Your task to perform on an android device: open a new tab in the chrome app Image 0: 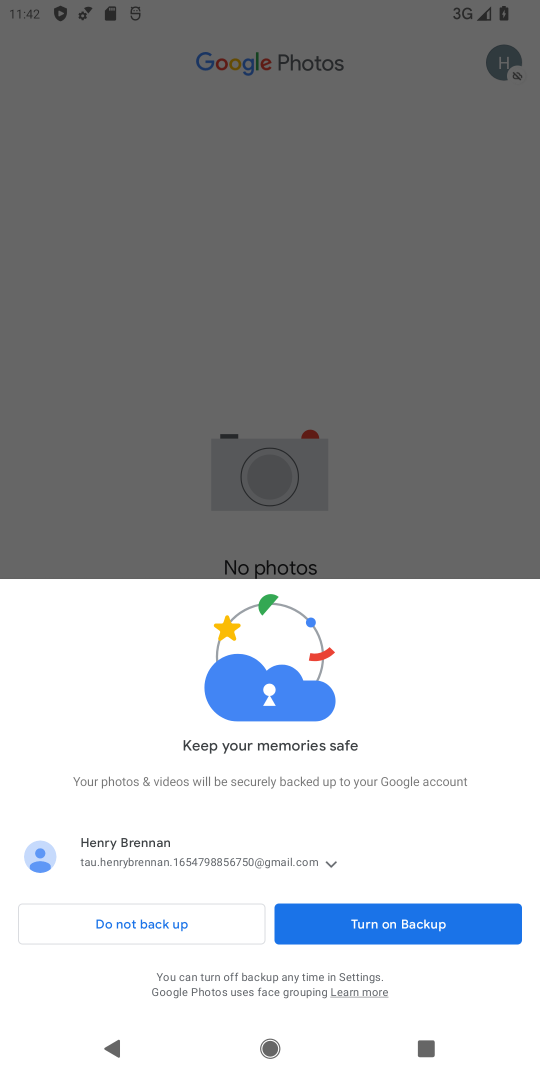
Step 0: press home button
Your task to perform on an android device: open a new tab in the chrome app Image 1: 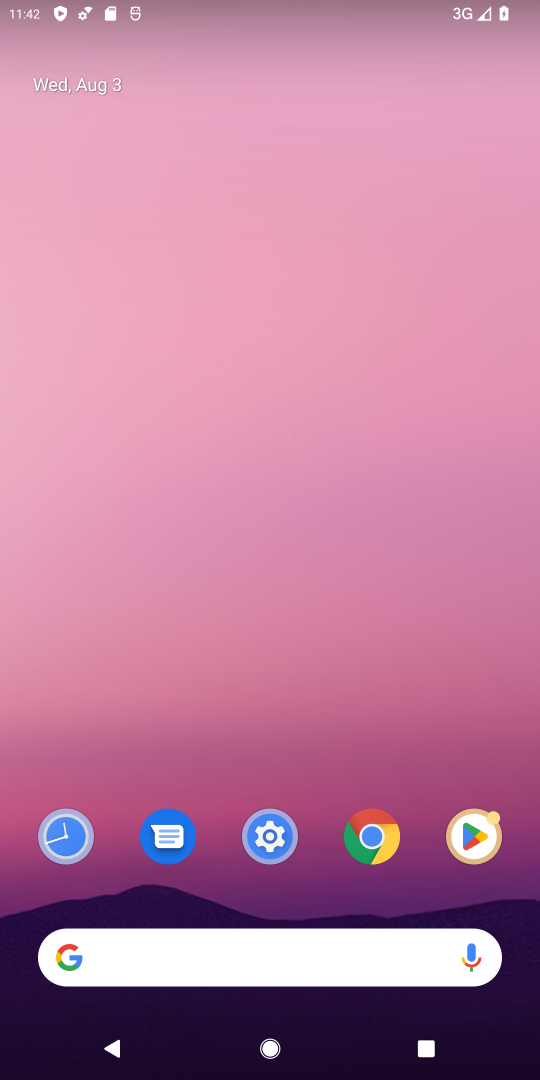
Step 1: drag from (235, 832) to (331, 230)
Your task to perform on an android device: open a new tab in the chrome app Image 2: 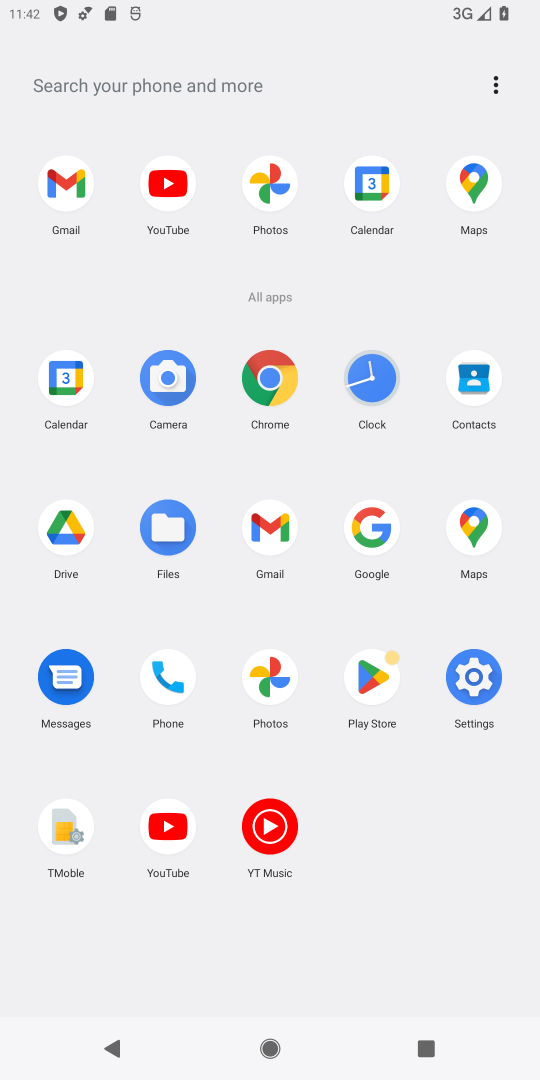
Step 2: click (268, 388)
Your task to perform on an android device: open a new tab in the chrome app Image 3: 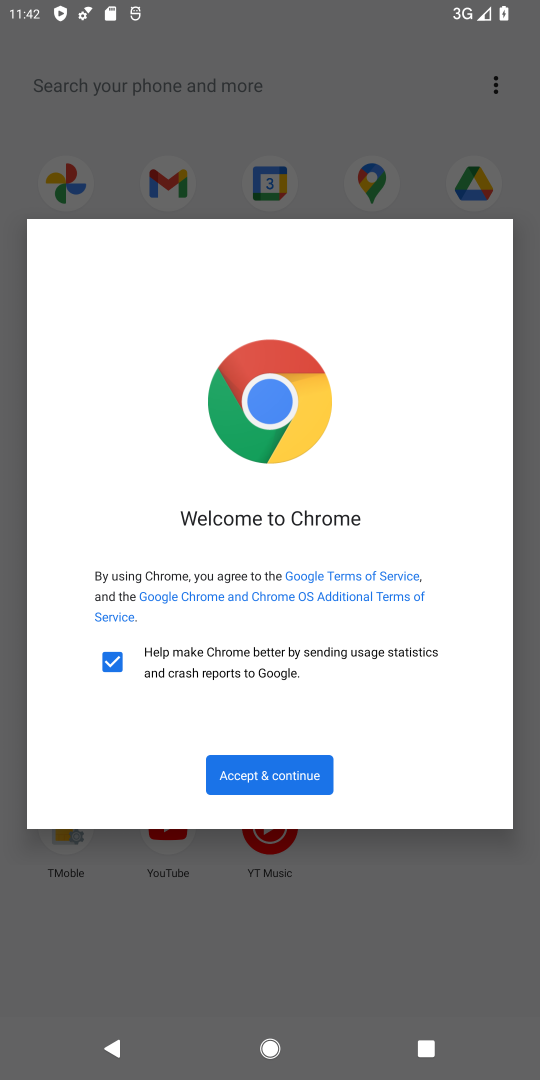
Step 3: click (271, 768)
Your task to perform on an android device: open a new tab in the chrome app Image 4: 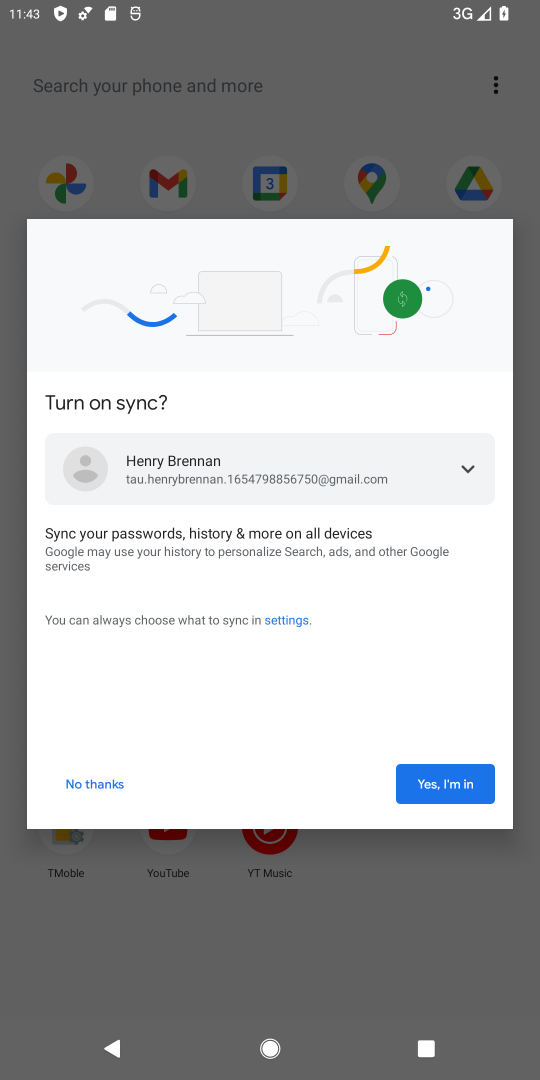
Step 4: drag from (220, 709) to (319, 409)
Your task to perform on an android device: open a new tab in the chrome app Image 5: 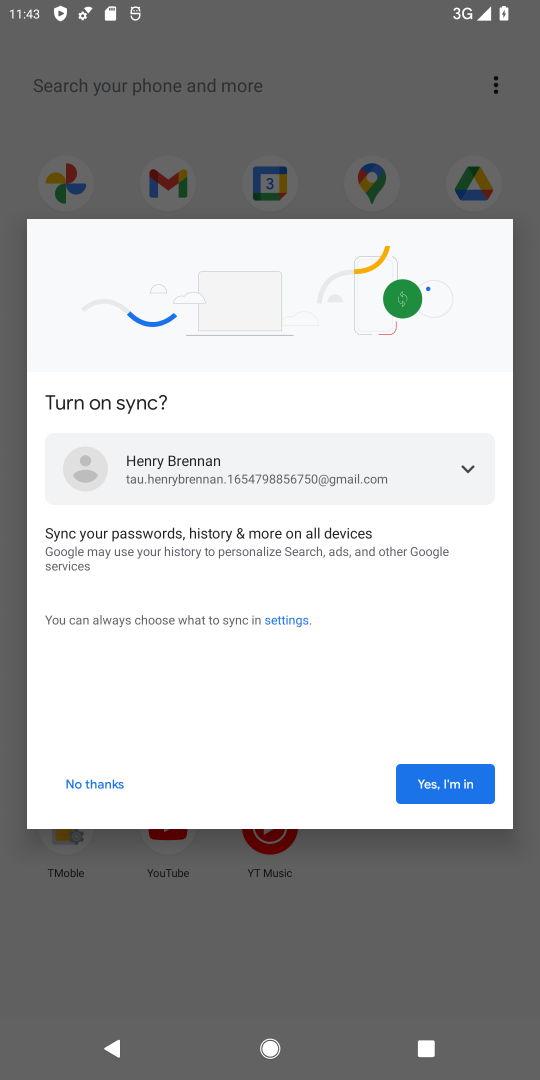
Step 5: drag from (333, 611) to (434, 450)
Your task to perform on an android device: open a new tab in the chrome app Image 6: 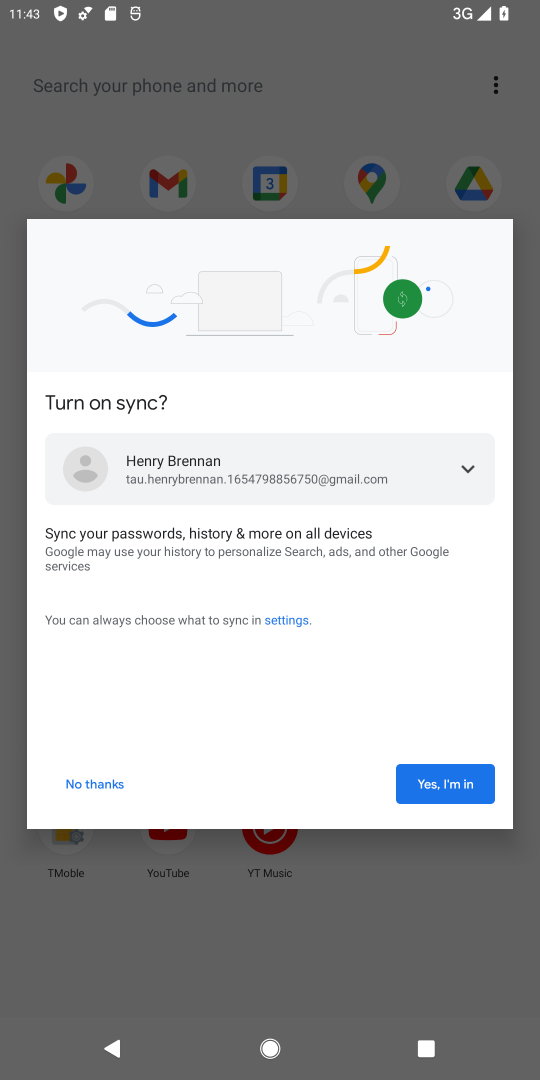
Step 6: drag from (288, 708) to (308, 417)
Your task to perform on an android device: open a new tab in the chrome app Image 7: 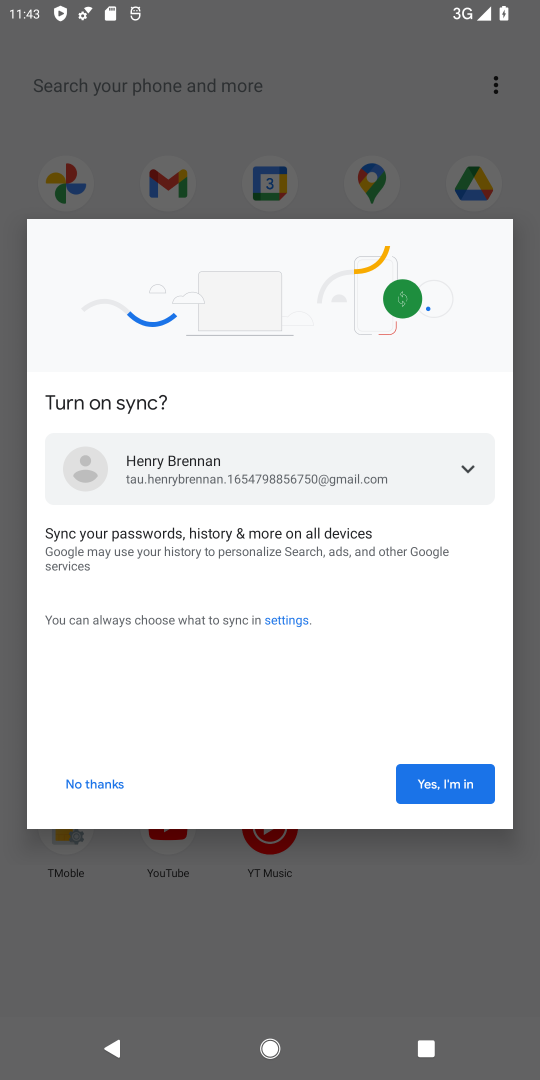
Step 7: drag from (137, 724) to (282, 352)
Your task to perform on an android device: open a new tab in the chrome app Image 8: 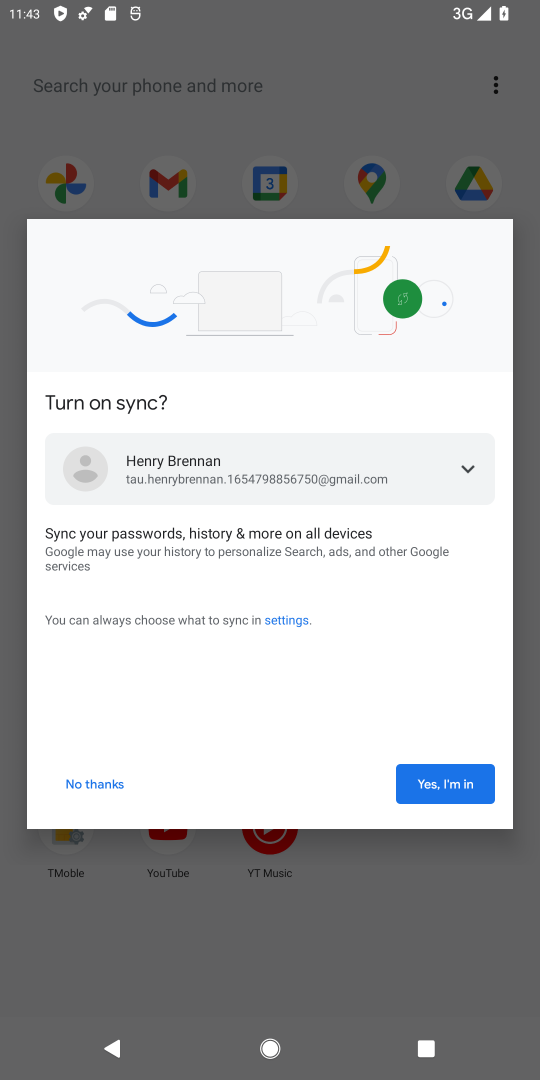
Step 8: drag from (273, 624) to (353, 980)
Your task to perform on an android device: open a new tab in the chrome app Image 9: 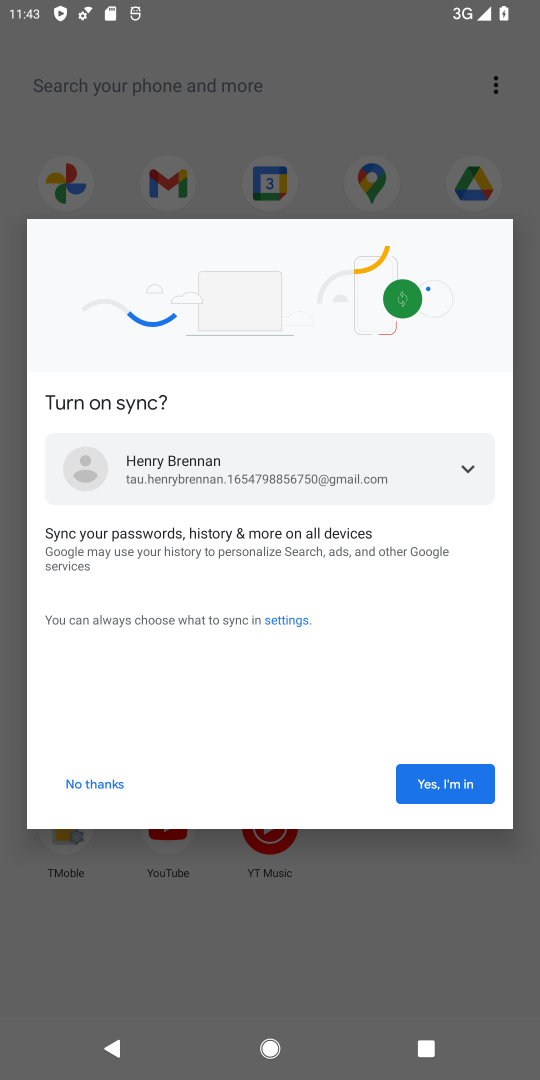
Step 9: drag from (258, 382) to (330, 856)
Your task to perform on an android device: open a new tab in the chrome app Image 10: 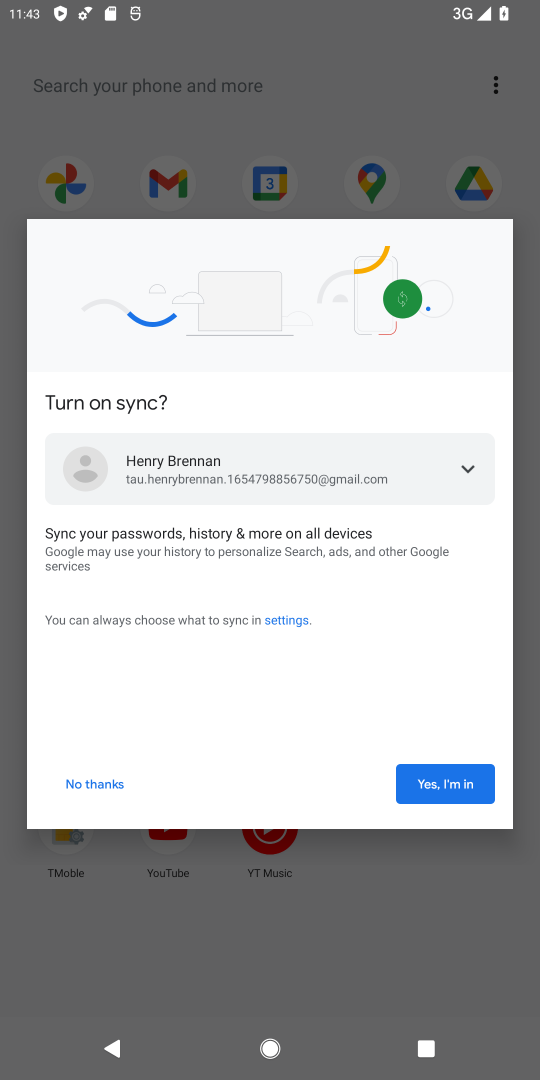
Step 10: drag from (247, 409) to (294, 933)
Your task to perform on an android device: open a new tab in the chrome app Image 11: 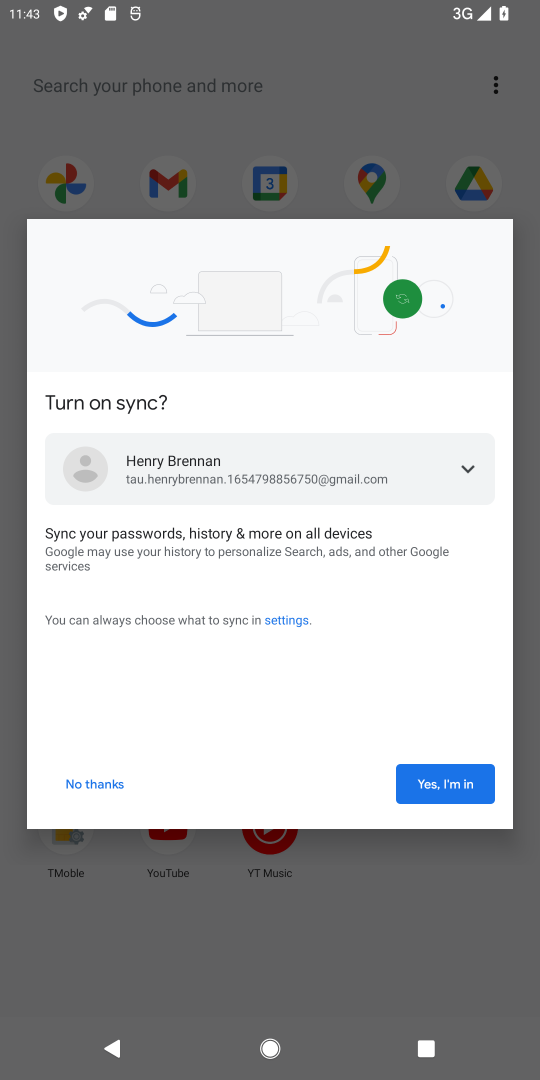
Step 11: drag from (267, 366) to (275, 766)
Your task to perform on an android device: open a new tab in the chrome app Image 12: 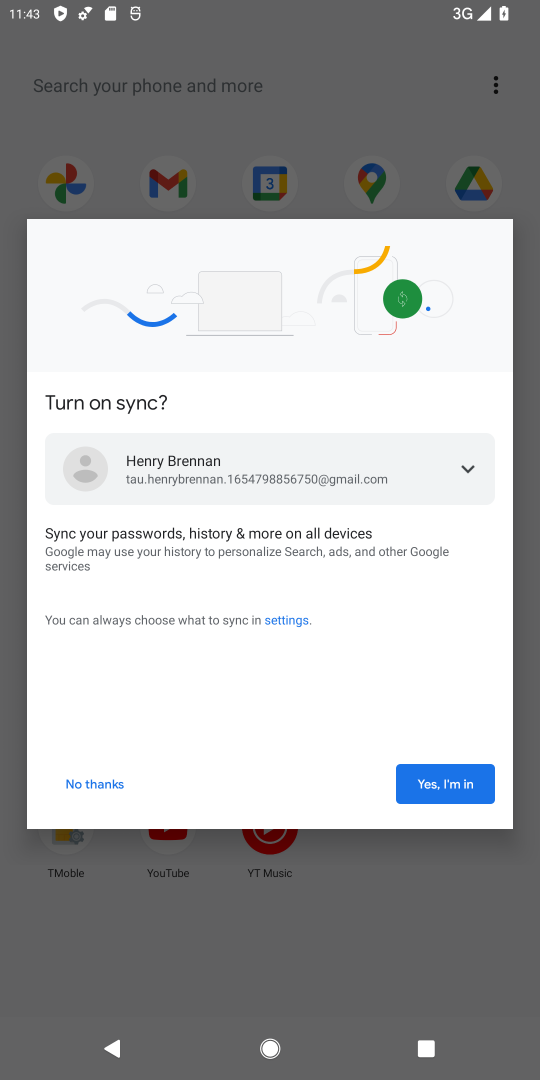
Step 12: drag from (290, 673) to (321, 357)
Your task to perform on an android device: open a new tab in the chrome app Image 13: 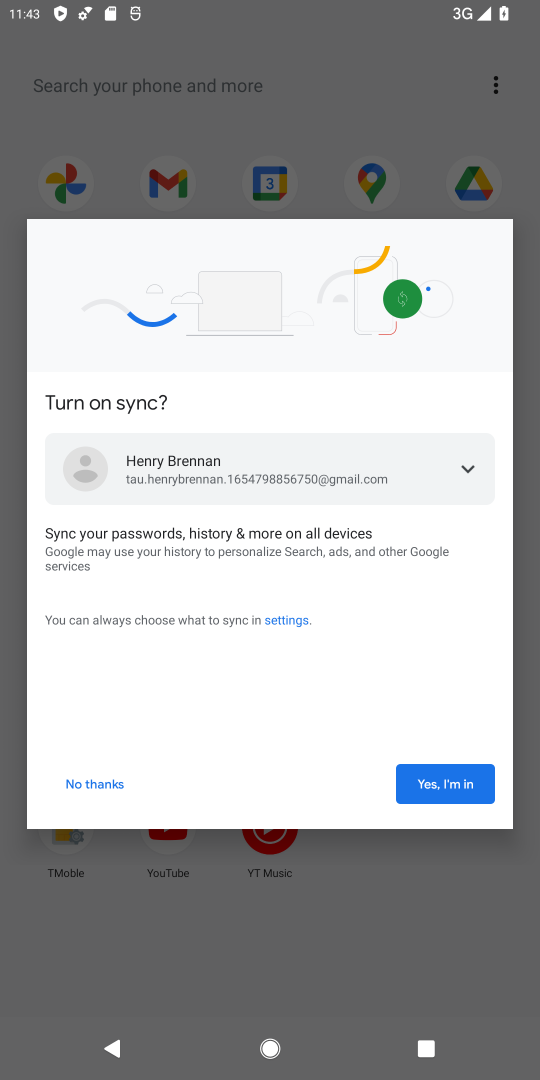
Step 13: drag from (242, 404) to (223, 660)
Your task to perform on an android device: open a new tab in the chrome app Image 14: 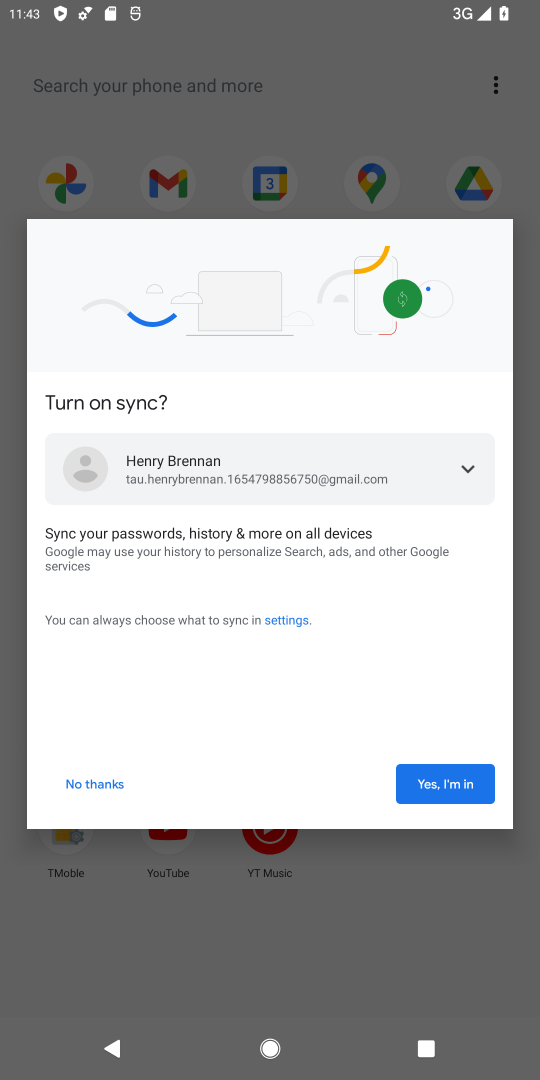
Step 14: drag from (283, 686) to (343, 536)
Your task to perform on an android device: open a new tab in the chrome app Image 15: 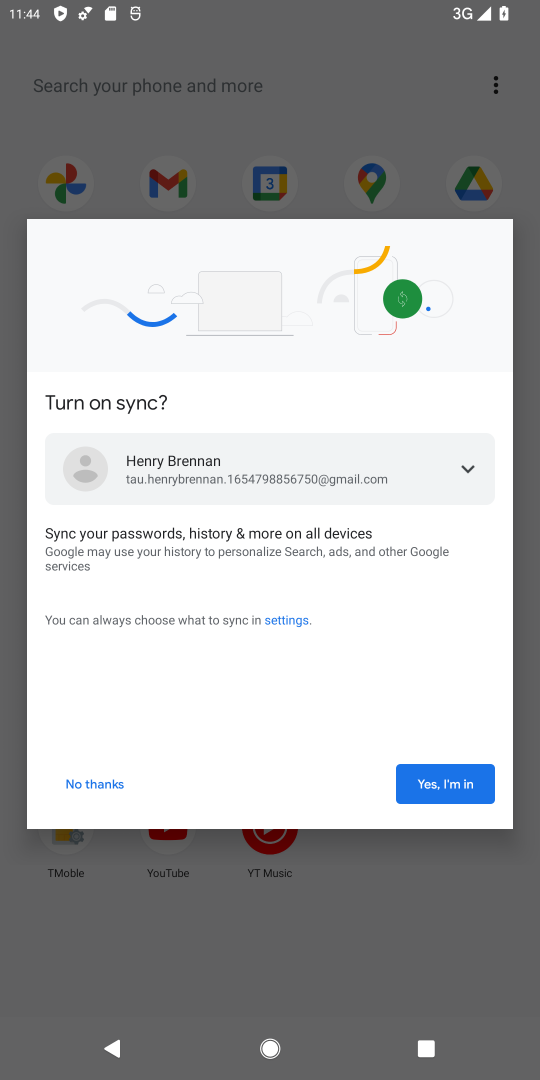
Step 15: click (426, 776)
Your task to perform on an android device: open a new tab in the chrome app Image 16: 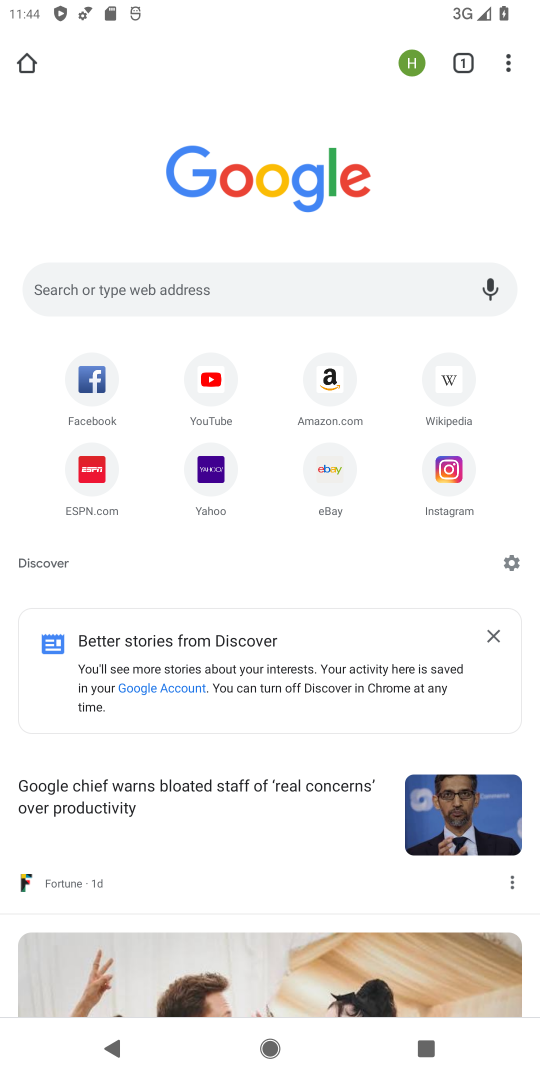
Step 16: task complete